Your task to perform on an android device: change notifications settings Image 0: 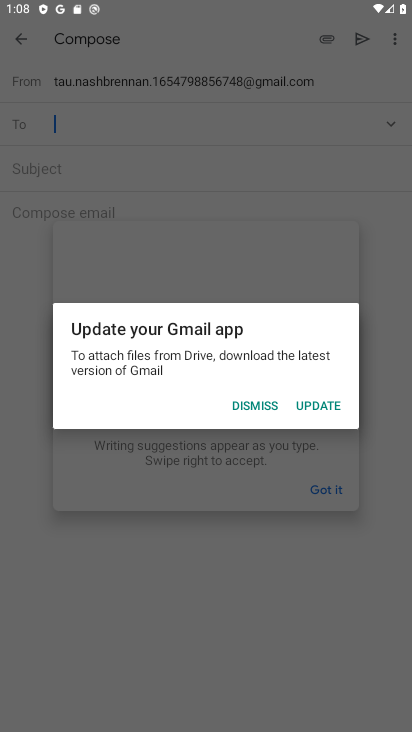
Step 0: press home button
Your task to perform on an android device: change notifications settings Image 1: 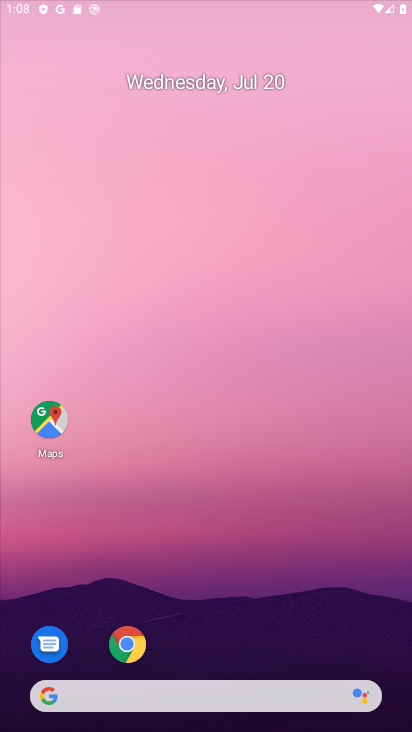
Step 1: drag from (243, 465) to (295, 2)
Your task to perform on an android device: change notifications settings Image 2: 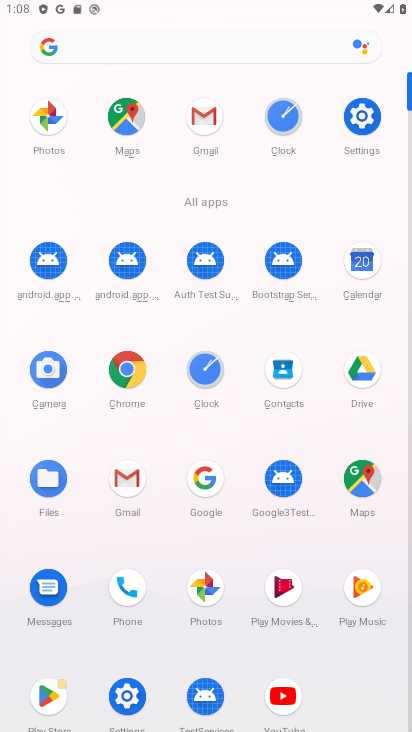
Step 2: click (371, 115)
Your task to perform on an android device: change notifications settings Image 3: 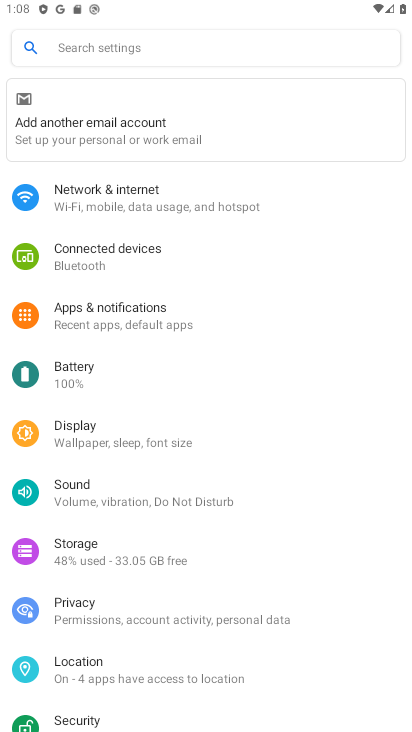
Step 3: click (139, 310)
Your task to perform on an android device: change notifications settings Image 4: 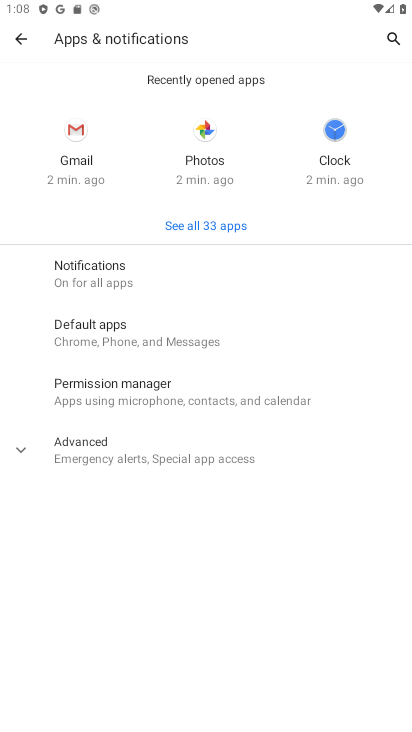
Step 4: click (166, 279)
Your task to perform on an android device: change notifications settings Image 5: 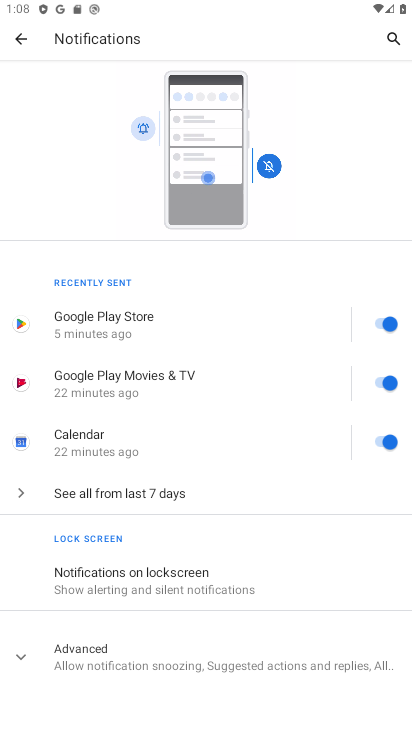
Step 5: click (382, 320)
Your task to perform on an android device: change notifications settings Image 6: 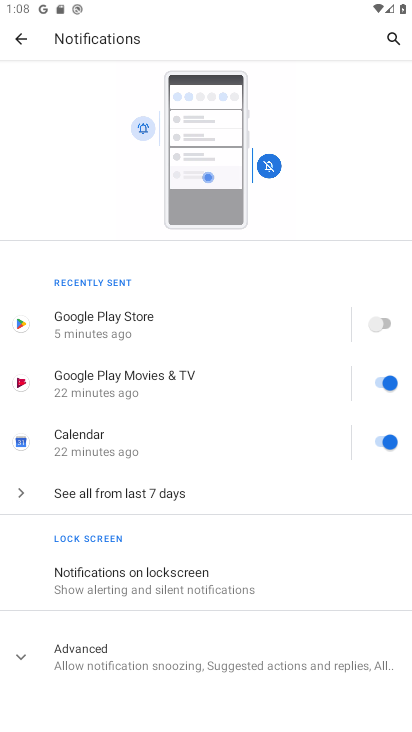
Step 6: task complete